Your task to perform on an android device: turn on wifi Image 0: 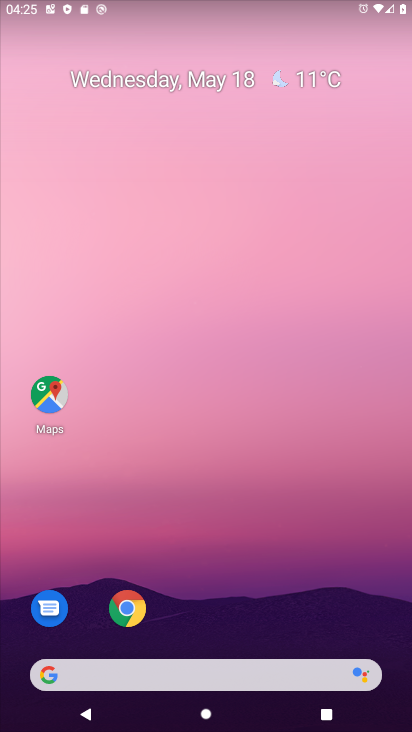
Step 0: drag from (183, 9) to (197, 640)
Your task to perform on an android device: turn on wifi Image 1: 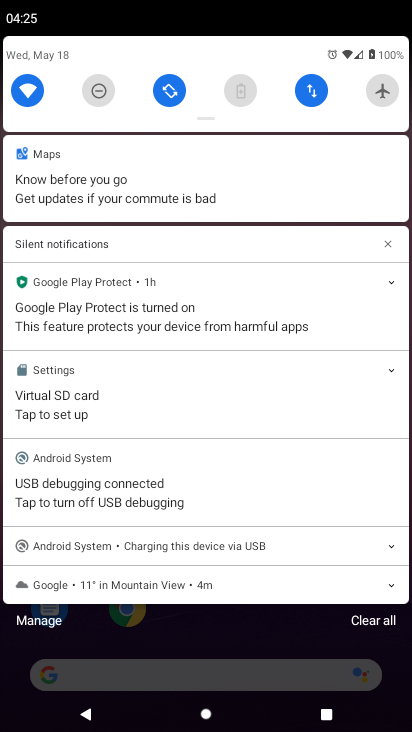
Step 1: task complete